Your task to perform on an android device: visit the assistant section in the google photos Image 0: 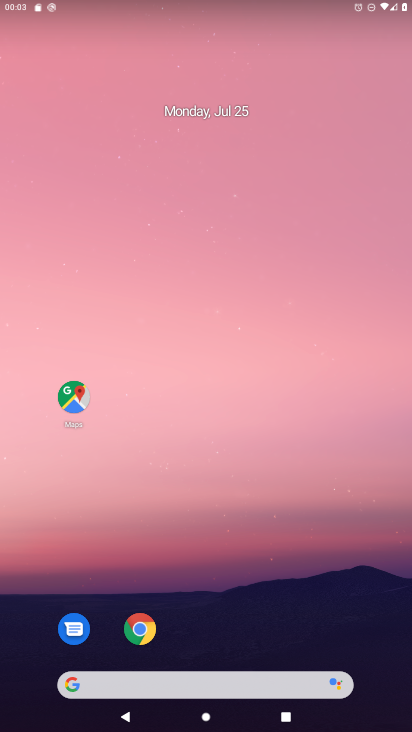
Step 0: drag from (195, 500) to (210, 21)
Your task to perform on an android device: visit the assistant section in the google photos Image 1: 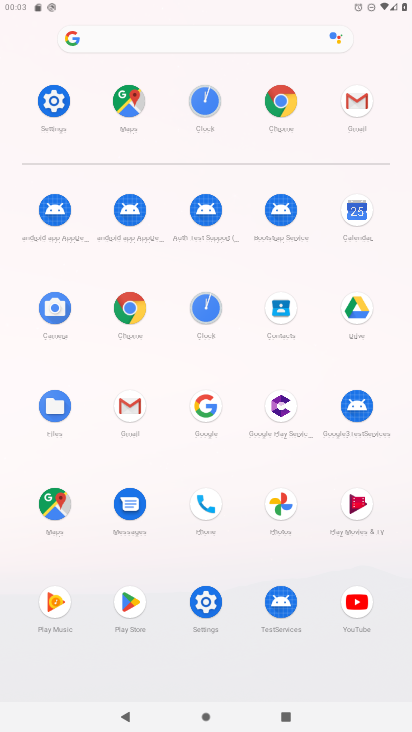
Step 1: click (280, 509)
Your task to perform on an android device: visit the assistant section in the google photos Image 2: 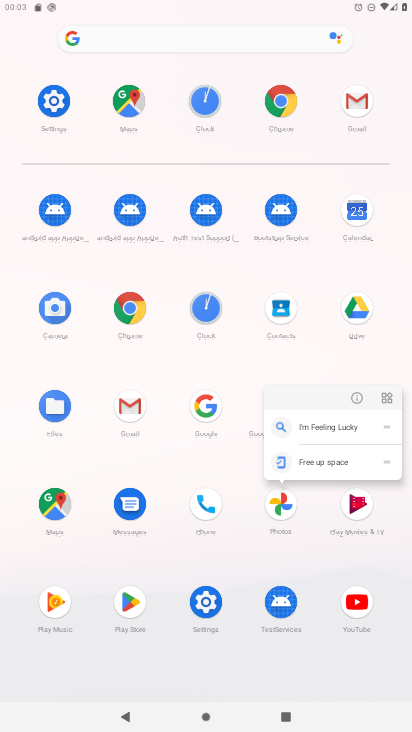
Step 2: click (362, 396)
Your task to perform on an android device: visit the assistant section in the google photos Image 3: 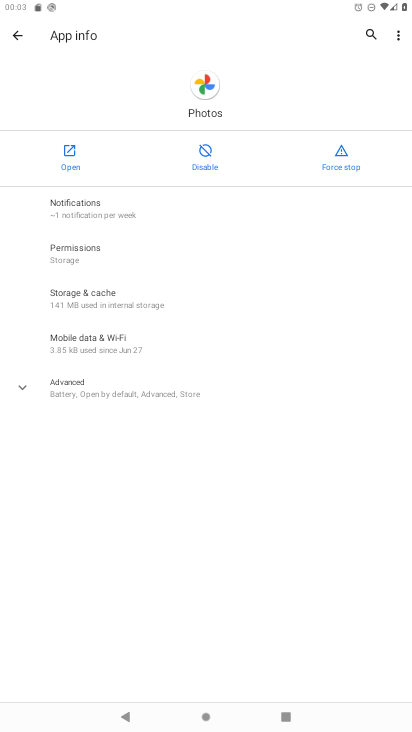
Step 3: click (71, 152)
Your task to perform on an android device: visit the assistant section in the google photos Image 4: 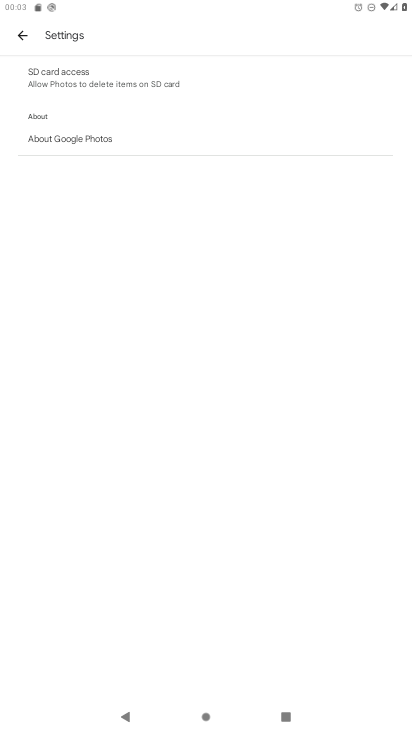
Step 4: click (24, 33)
Your task to perform on an android device: visit the assistant section in the google photos Image 5: 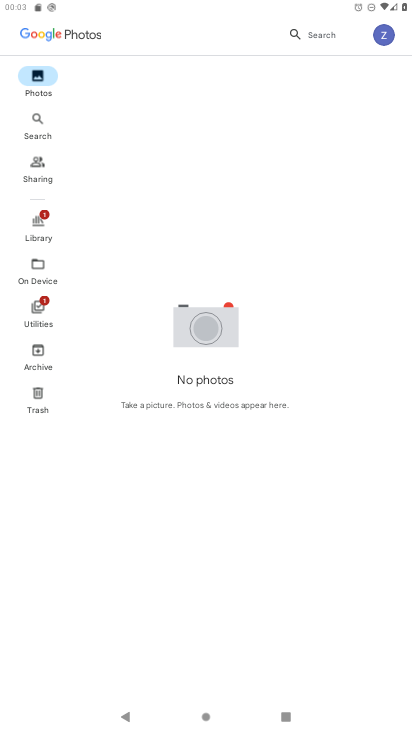
Step 5: task complete